Your task to perform on an android device: open wifi settings Image 0: 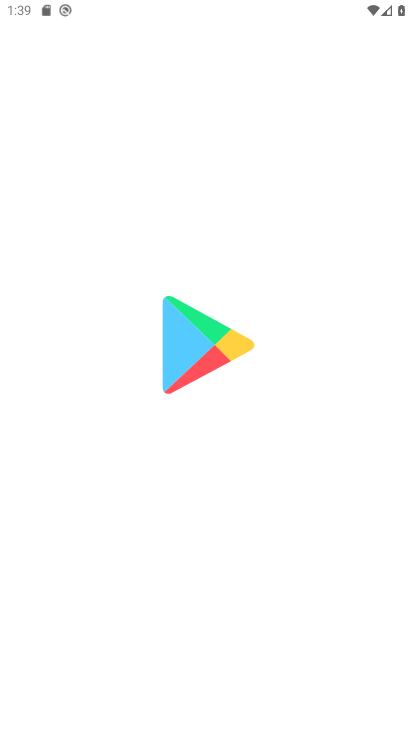
Step 0: drag from (210, 640) to (209, 89)
Your task to perform on an android device: open wifi settings Image 1: 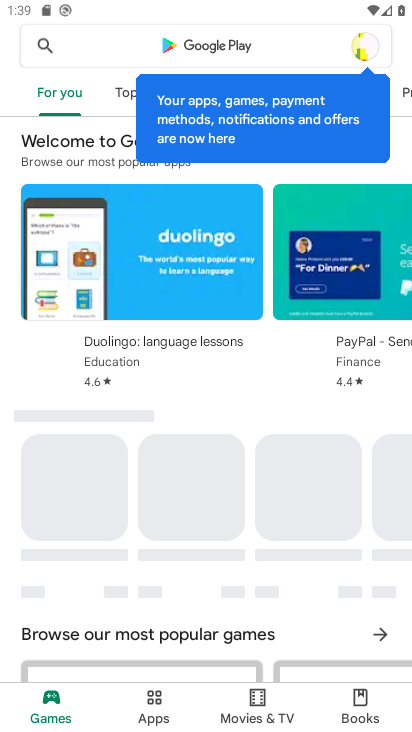
Step 1: press home button
Your task to perform on an android device: open wifi settings Image 2: 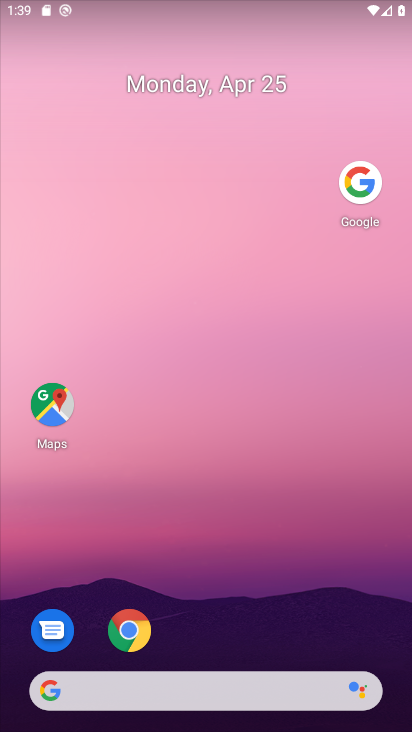
Step 2: drag from (206, 666) to (206, 8)
Your task to perform on an android device: open wifi settings Image 3: 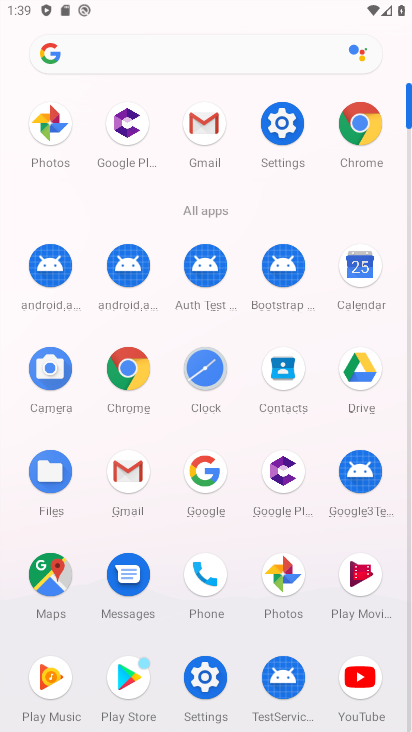
Step 3: click (284, 123)
Your task to perform on an android device: open wifi settings Image 4: 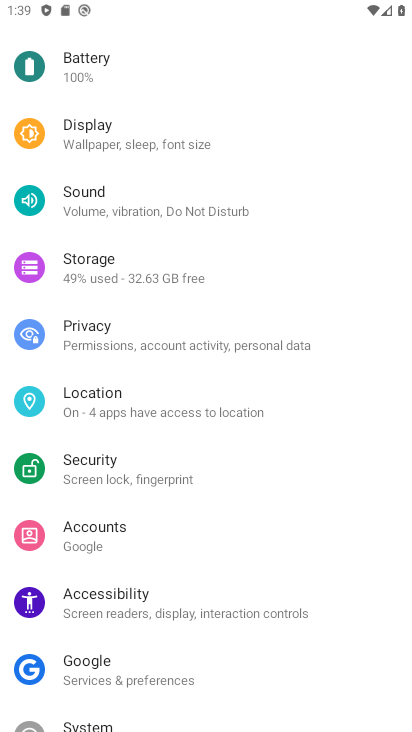
Step 4: drag from (146, 212) to (136, 582)
Your task to perform on an android device: open wifi settings Image 5: 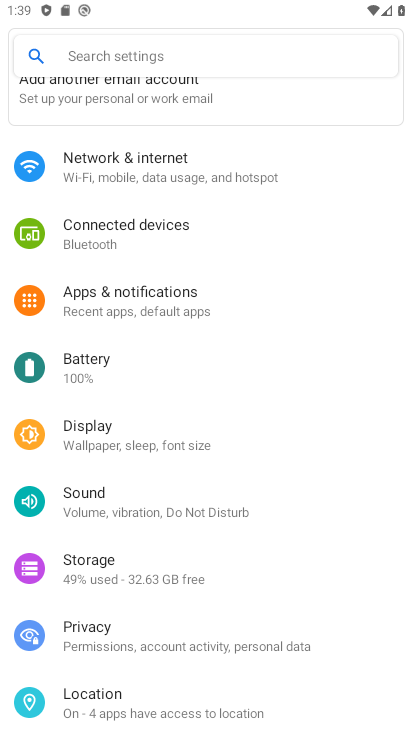
Step 5: click (136, 172)
Your task to perform on an android device: open wifi settings Image 6: 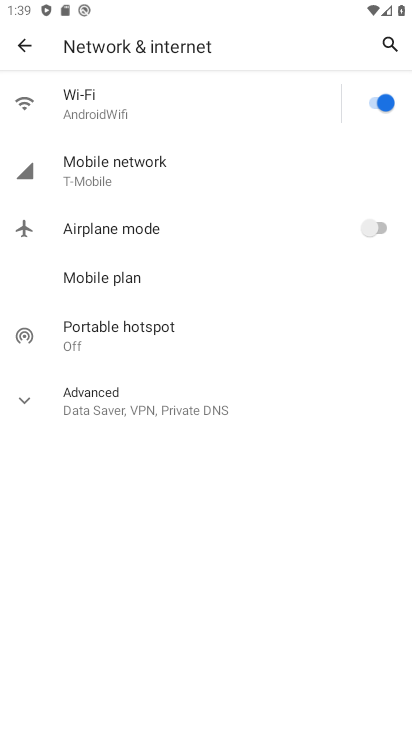
Step 6: click (106, 112)
Your task to perform on an android device: open wifi settings Image 7: 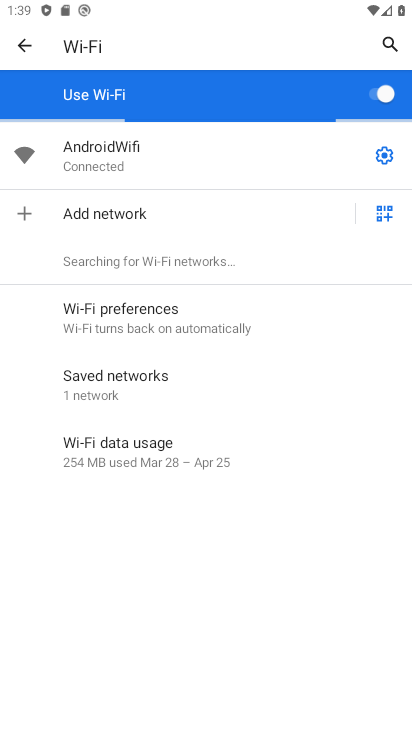
Step 7: task complete